Your task to perform on an android device: toggle airplane mode Image 0: 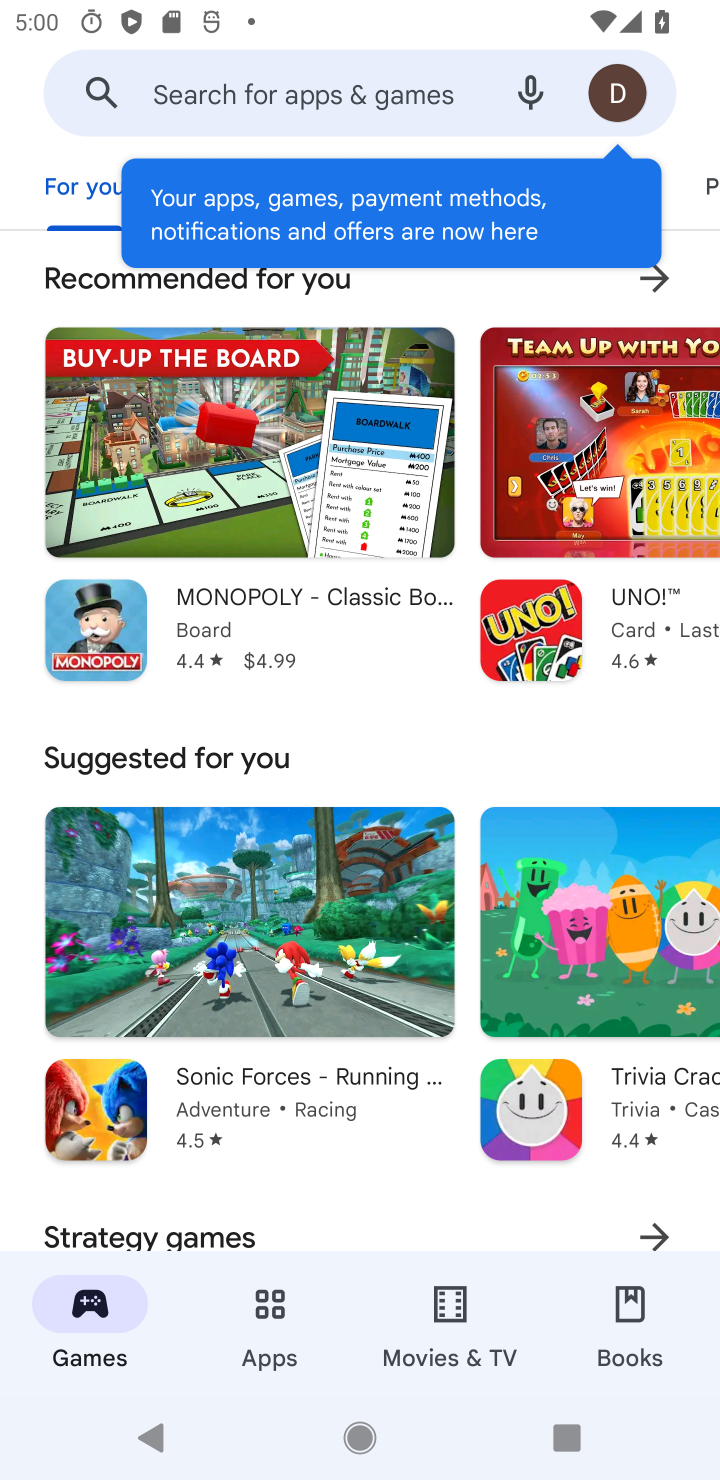
Step 0: press back button
Your task to perform on an android device: toggle airplane mode Image 1: 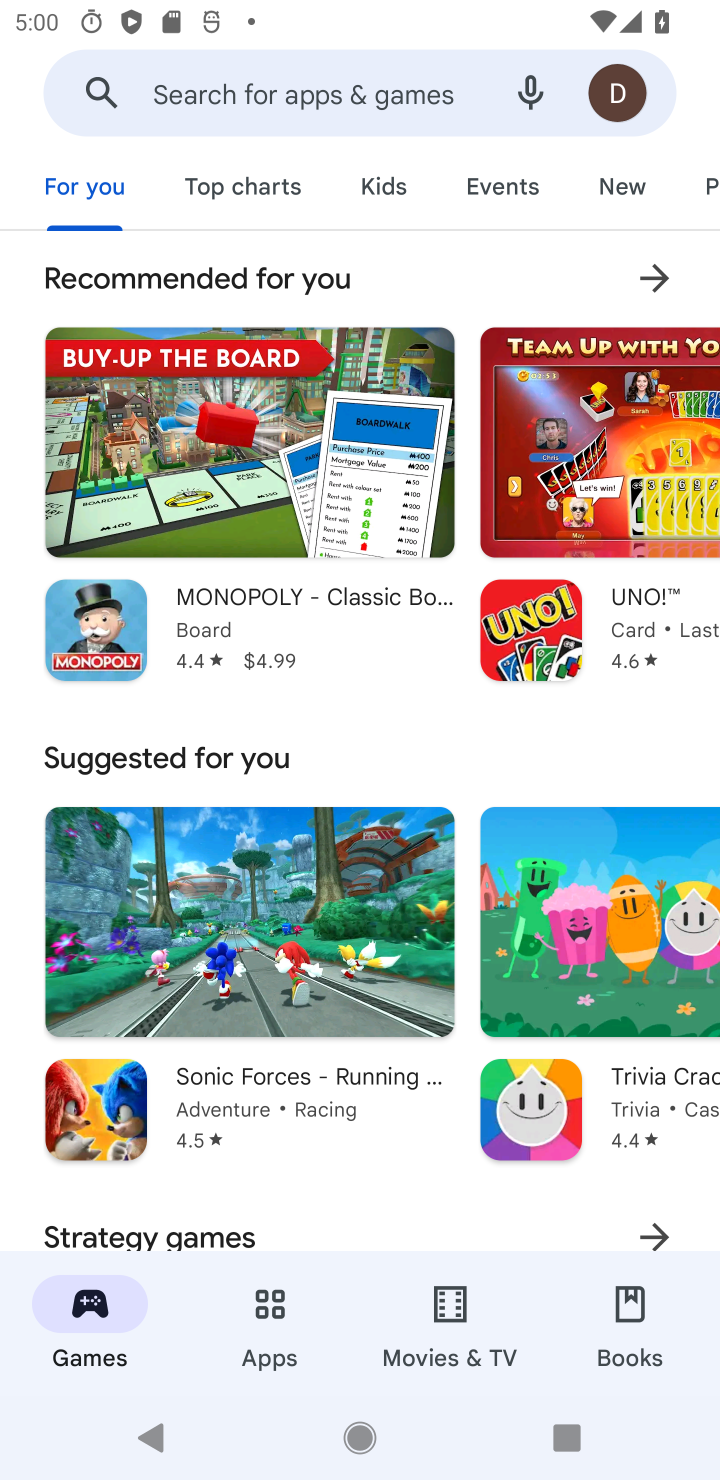
Step 1: press back button
Your task to perform on an android device: toggle airplane mode Image 2: 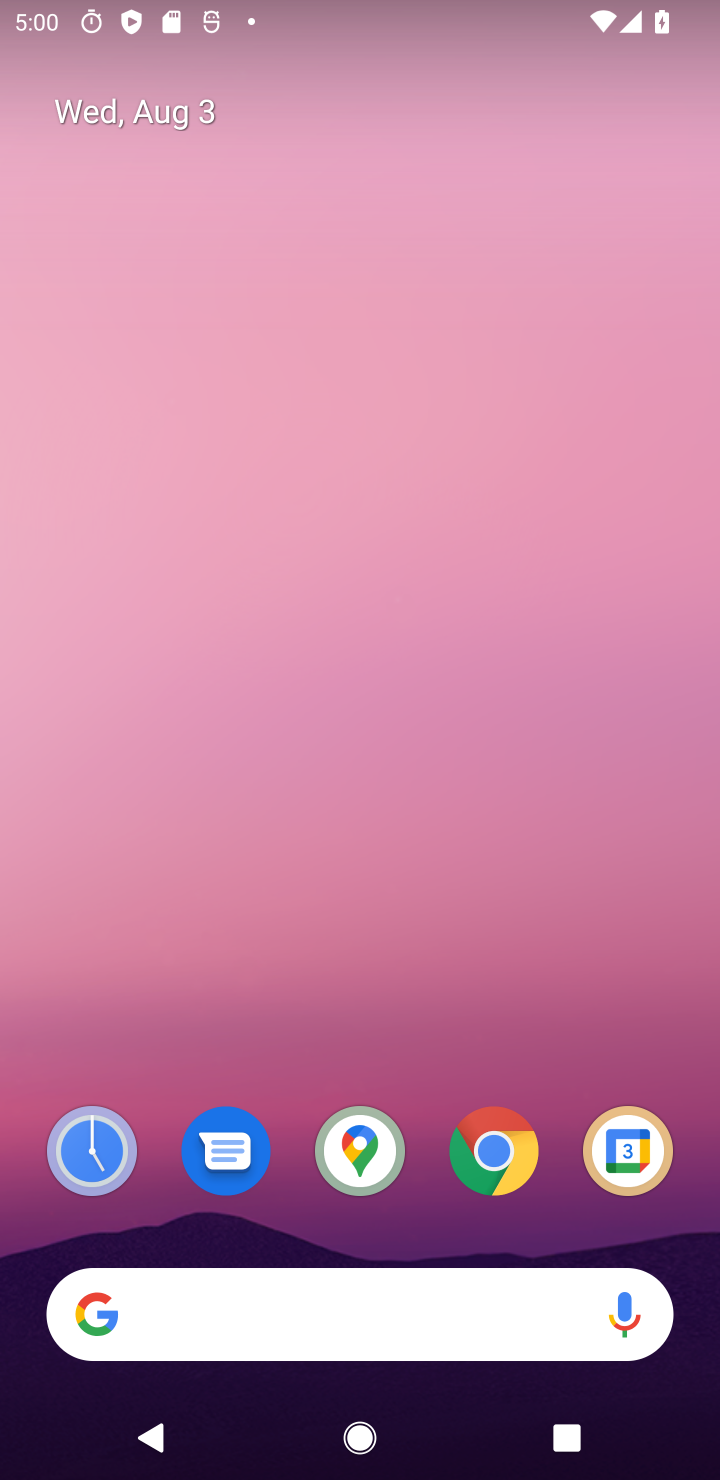
Step 2: drag from (447, 1217) to (303, 760)
Your task to perform on an android device: toggle airplane mode Image 3: 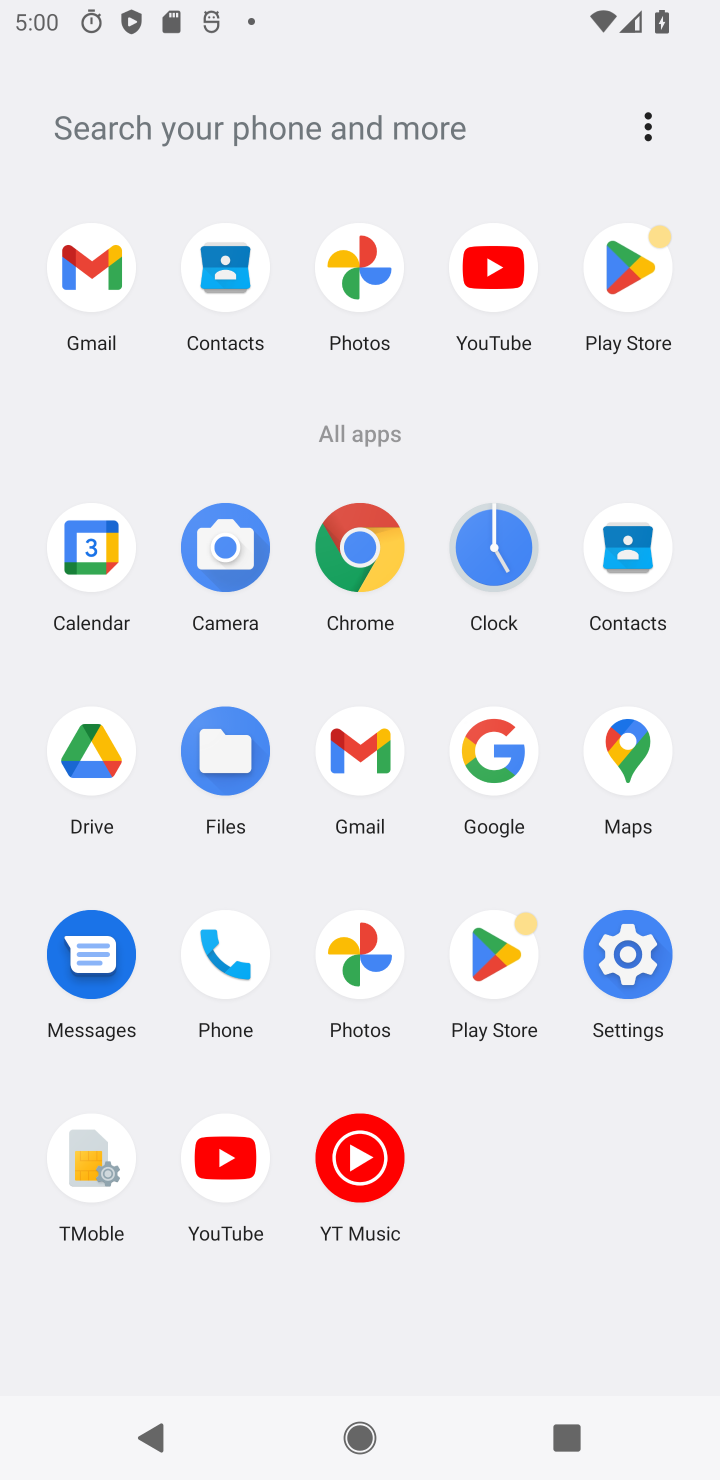
Step 3: click (605, 948)
Your task to perform on an android device: toggle airplane mode Image 4: 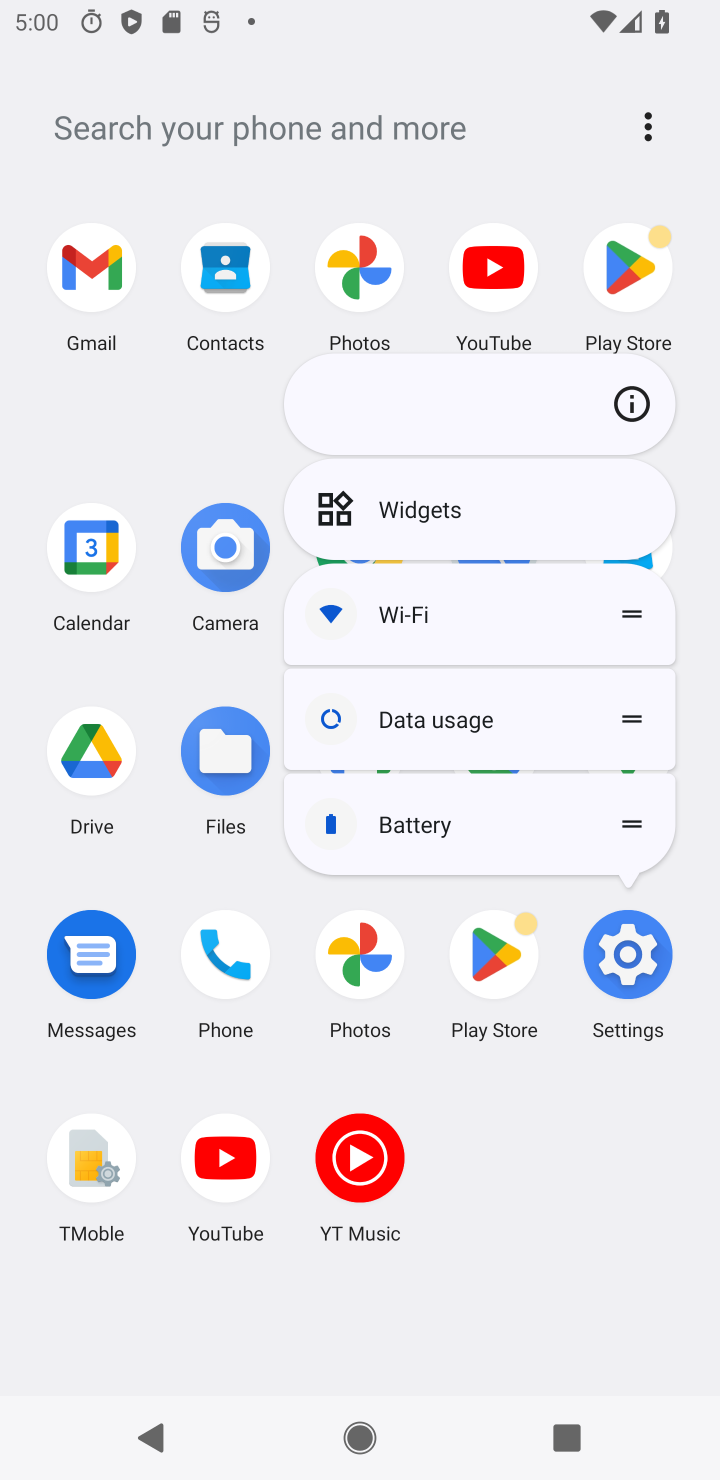
Step 4: click (605, 948)
Your task to perform on an android device: toggle airplane mode Image 5: 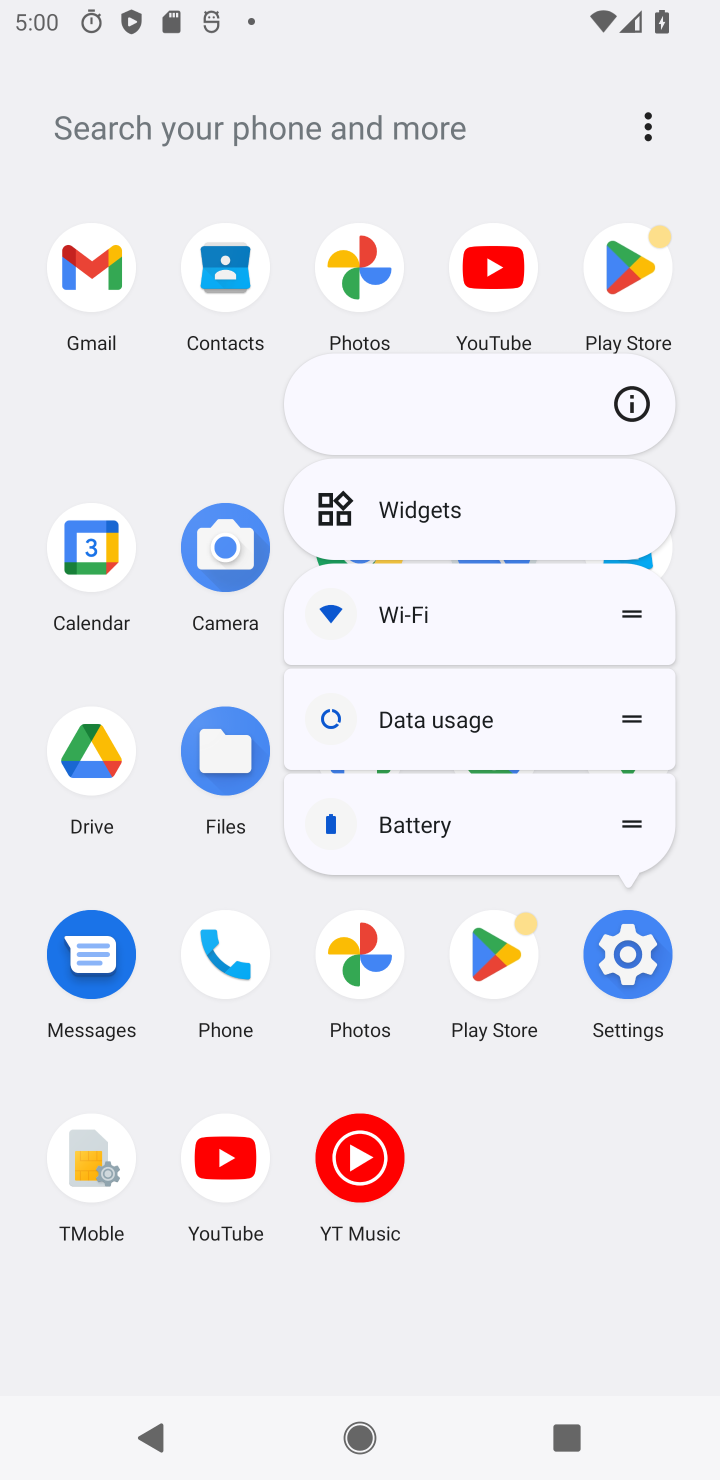
Step 5: click (605, 948)
Your task to perform on an android device: toggle airplane mode Image 6: 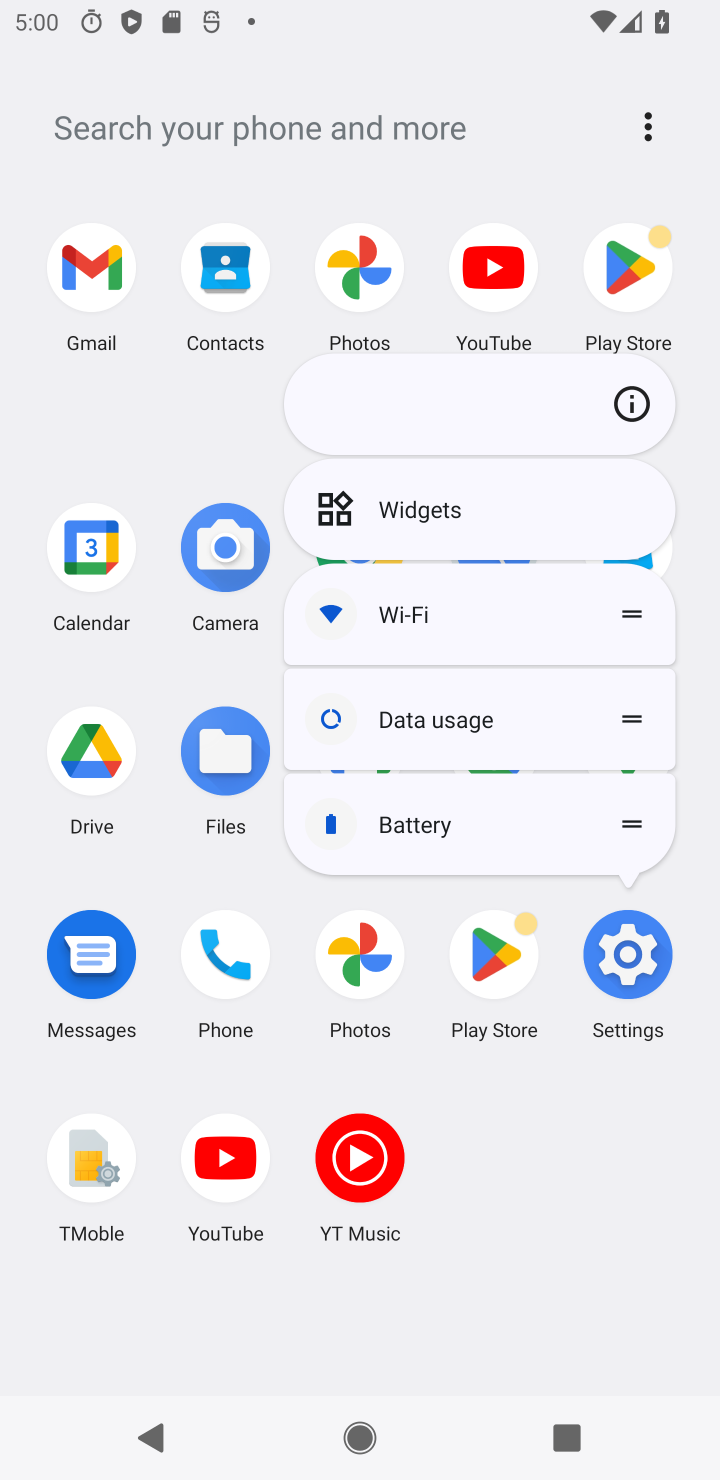
Step 6: click (447, 627)
Your task to perform on an android device: toggle airplane mode Image 7: 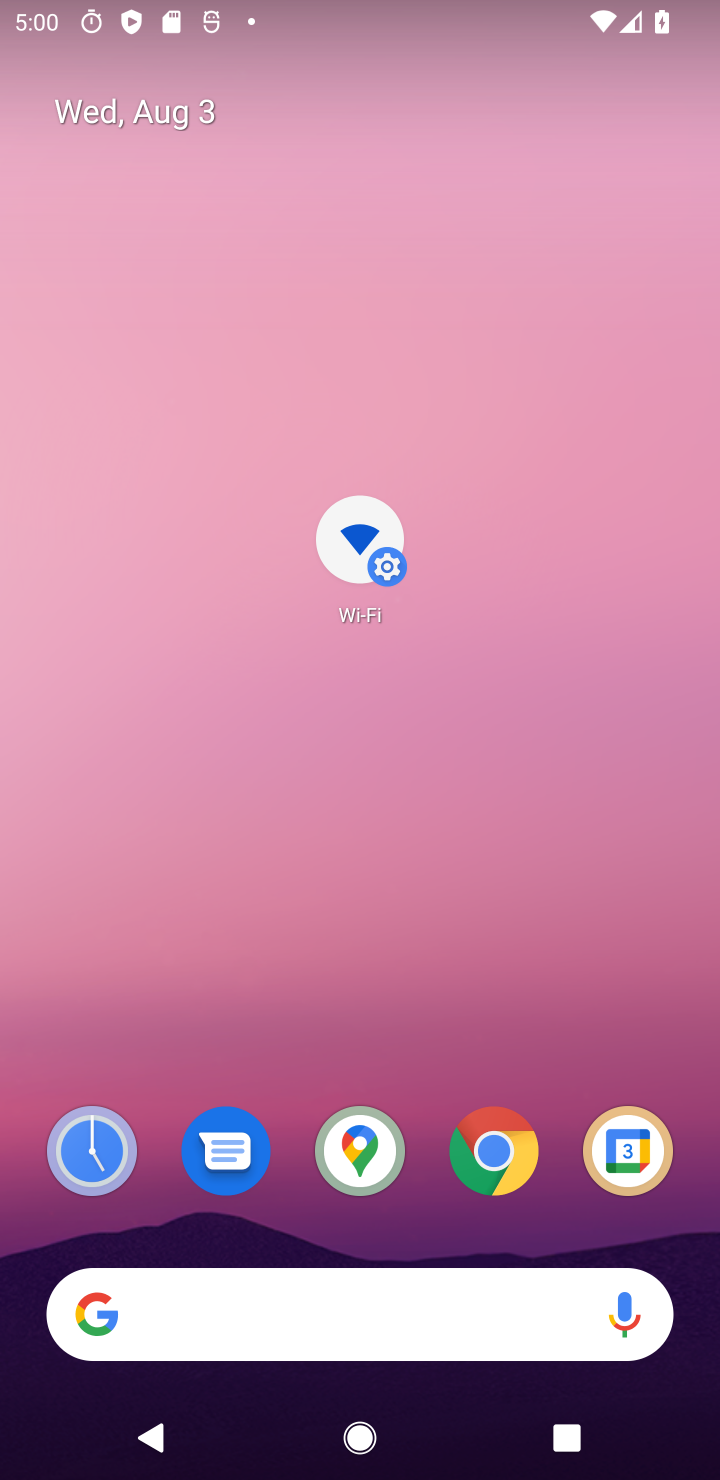
Step 7: drag from (350, 722) to (216, 205)
Your task to perform on an android device: toggle airplane mode Image 8: 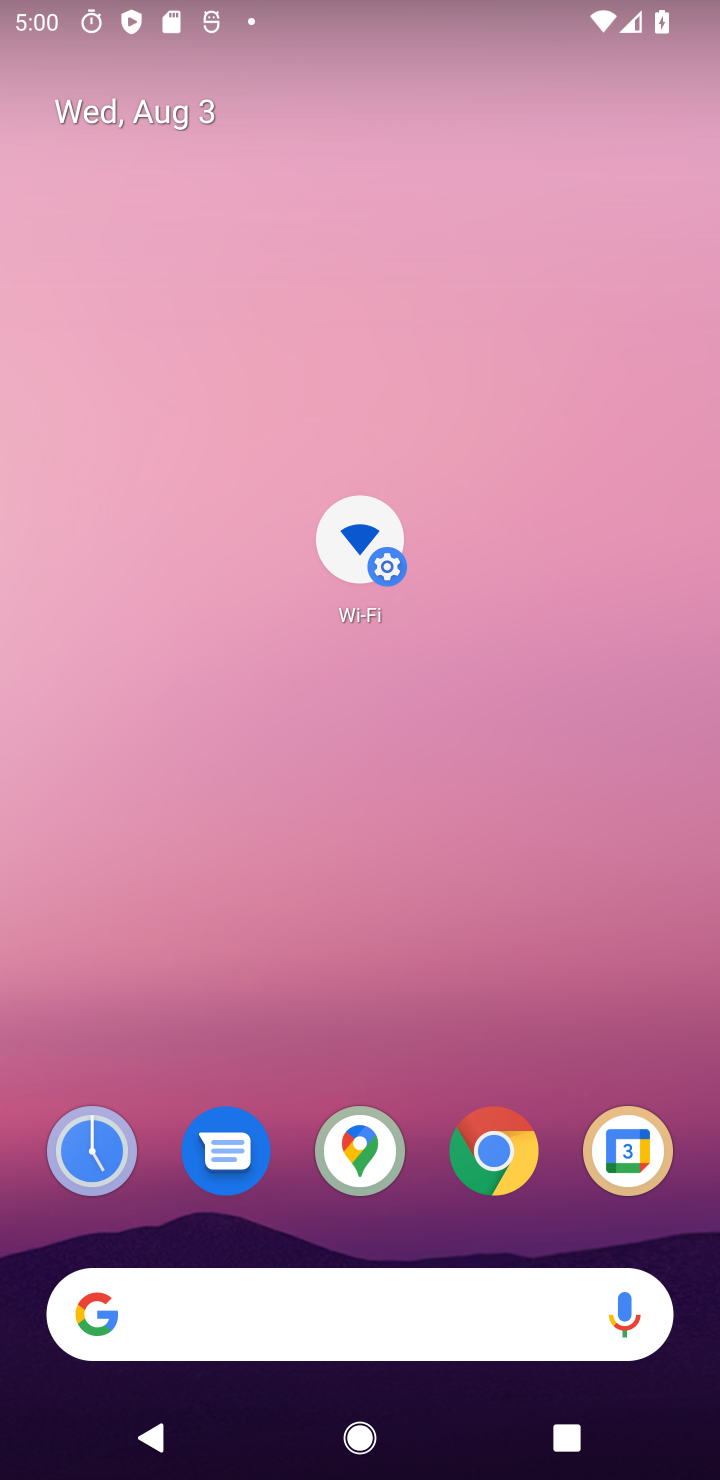
Step 8: drag from (385, 1171) to (352, 361)
Your task to perform on an android device: toggle airplane mode Image 9: 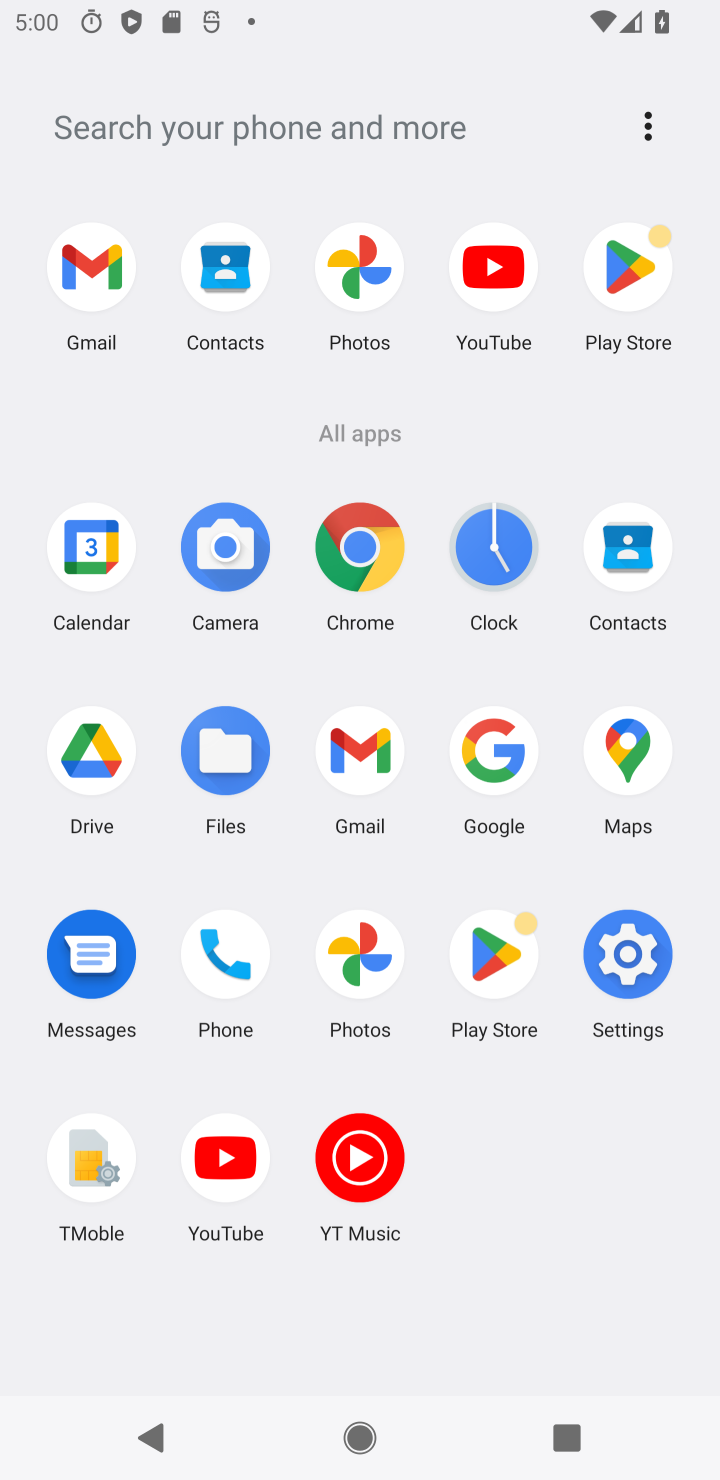
Step 9: drag from (443, 995) to (427, 394)
Your task to perform on an android device: toggle airplane mode Image 10: 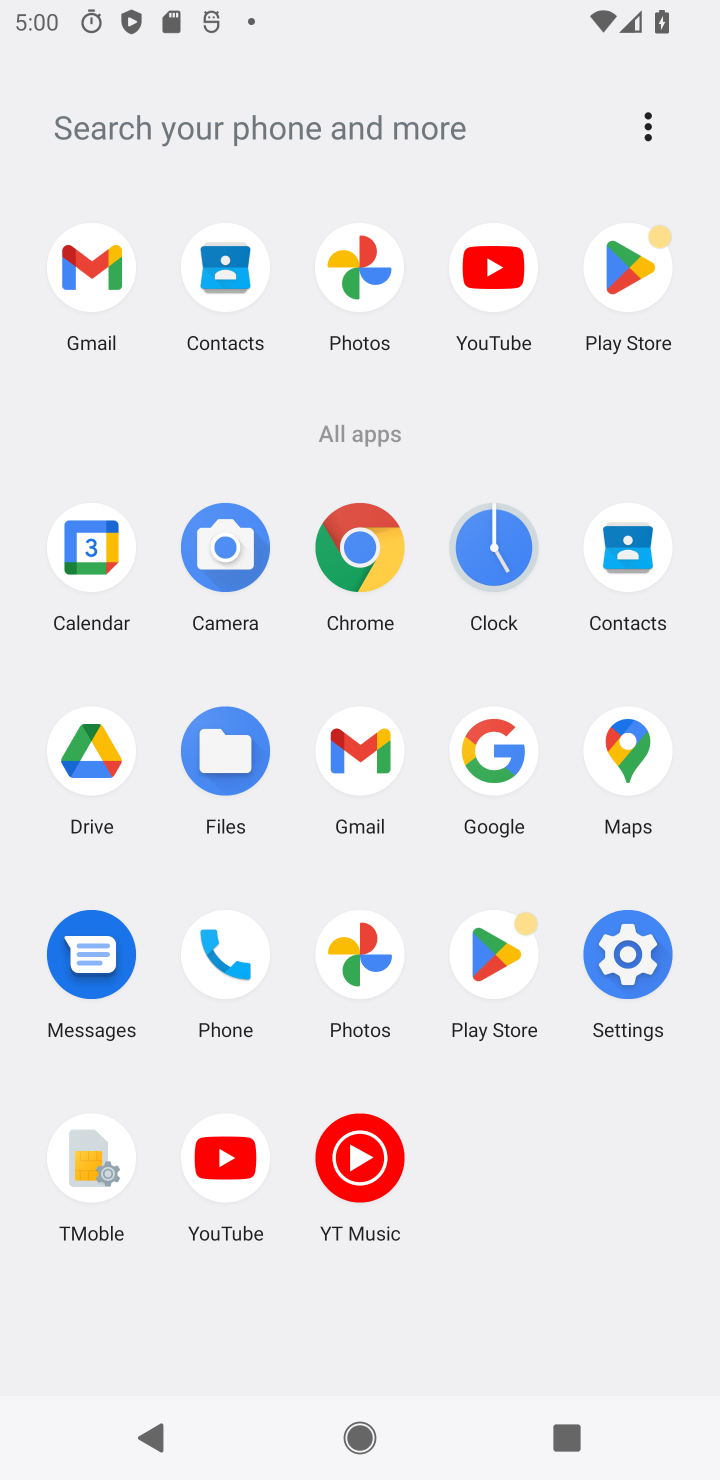
Step 10: click (629, 948)
Your task to perform on an android device: toggle airplane mode Image 11: 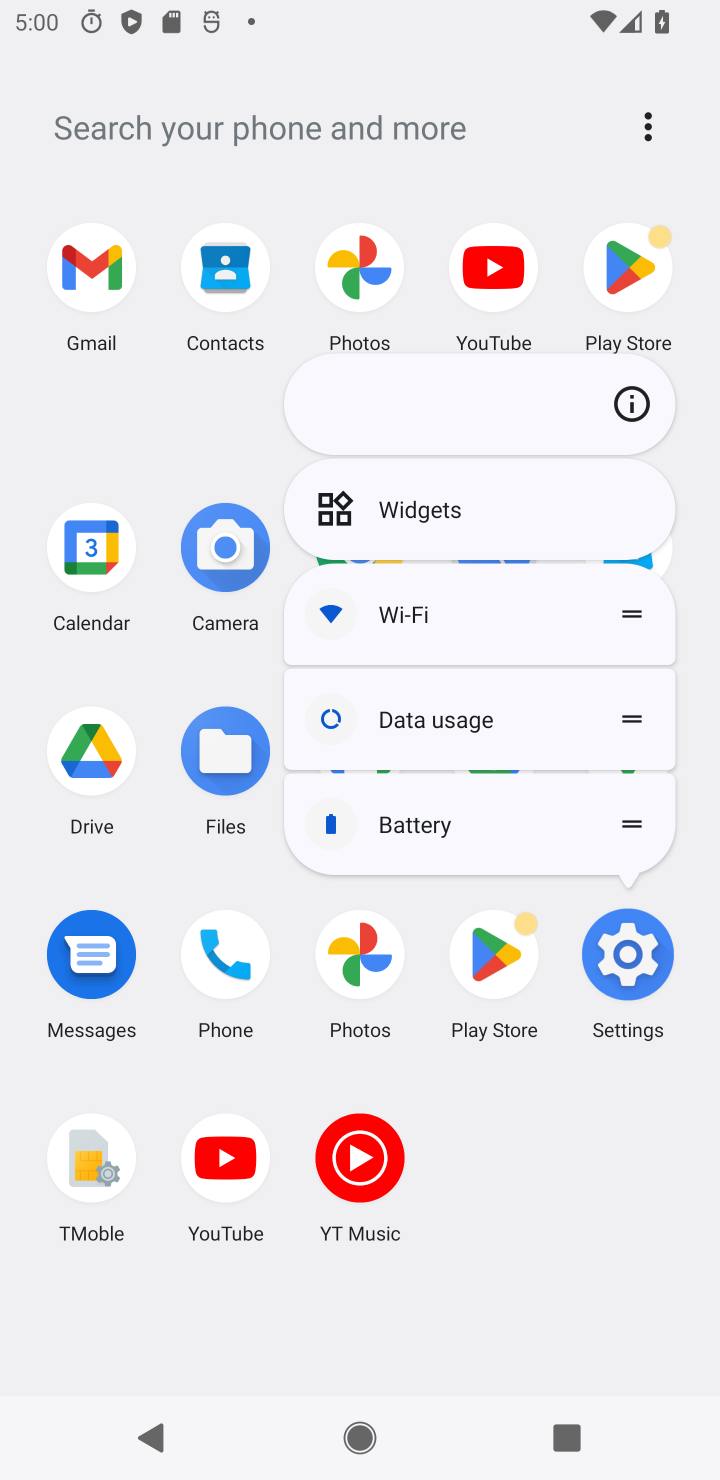
Step 11: click (625, 950)
Your task to perform on an android device: toggle airplane mode Image 12: 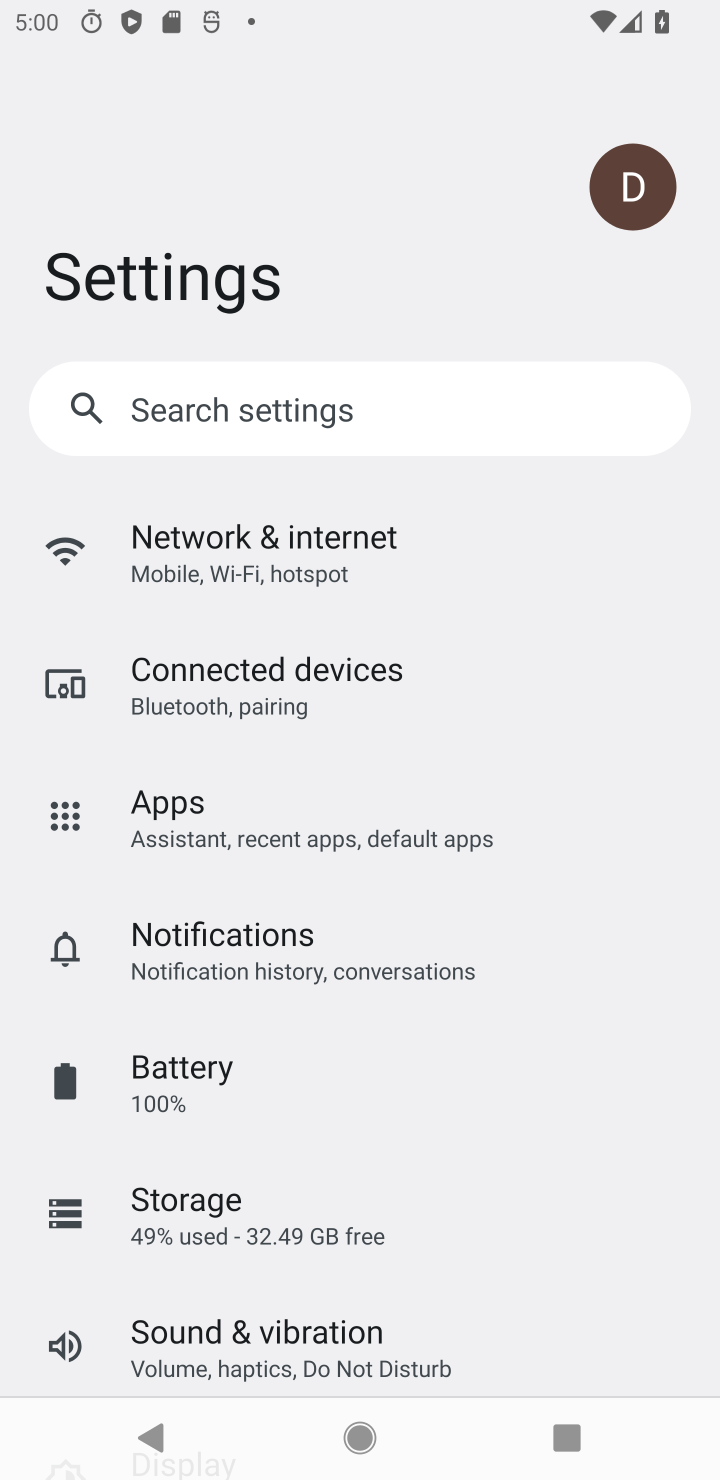
Step 12: click (240, 547)
Your task to perform on an android device: toggle airplane mode Image 13: 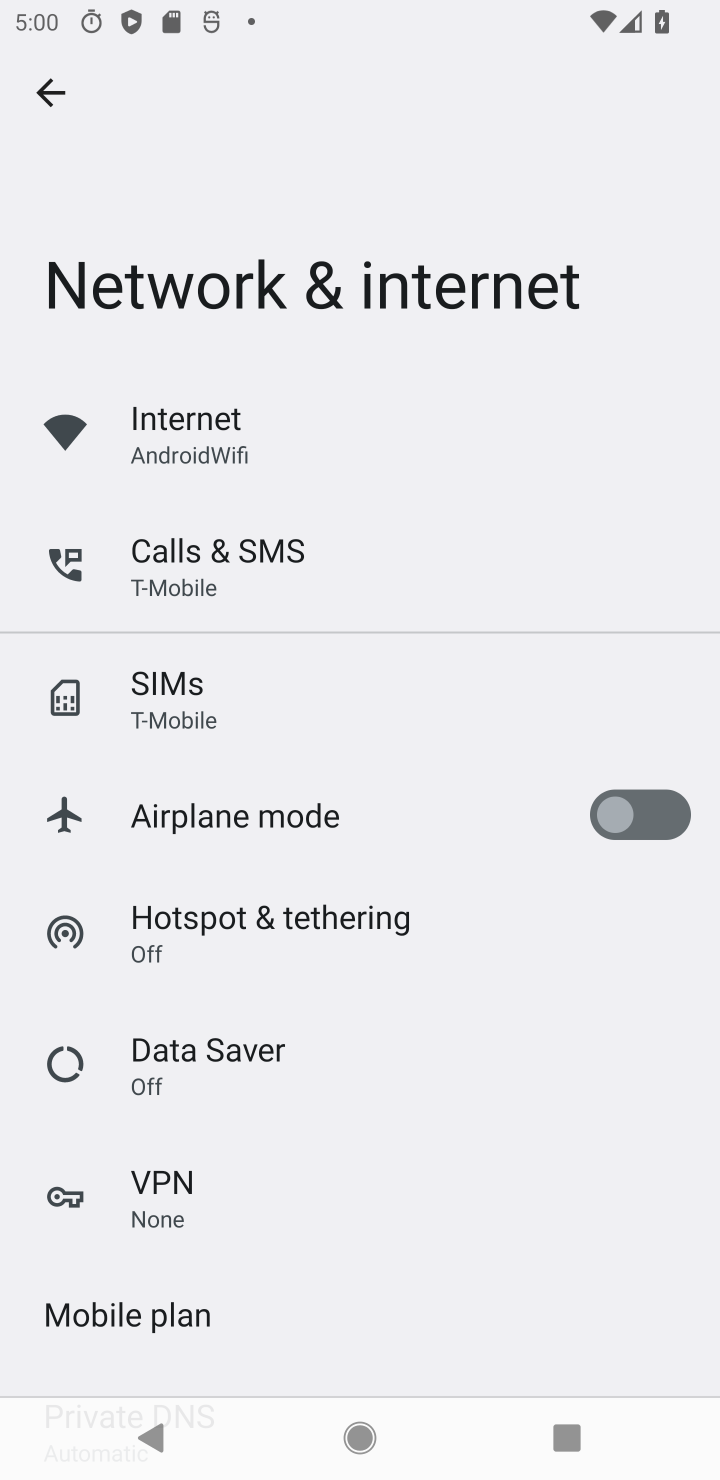
Step 13: click (622, 799)
Your task to perform on an android device: toggle airplane mode Image 14: 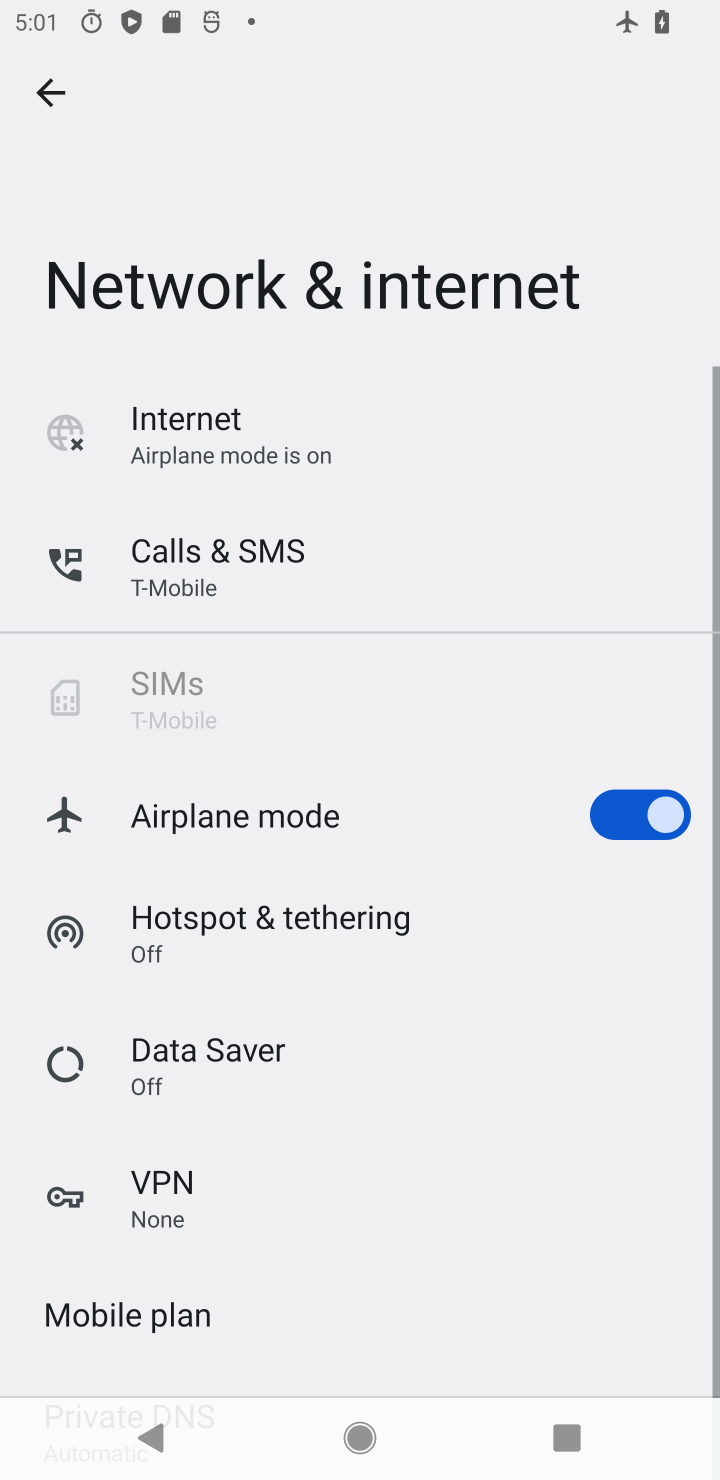
Step 14: task complete